Your task to perform on an android device: turn notification dots off Image 0: 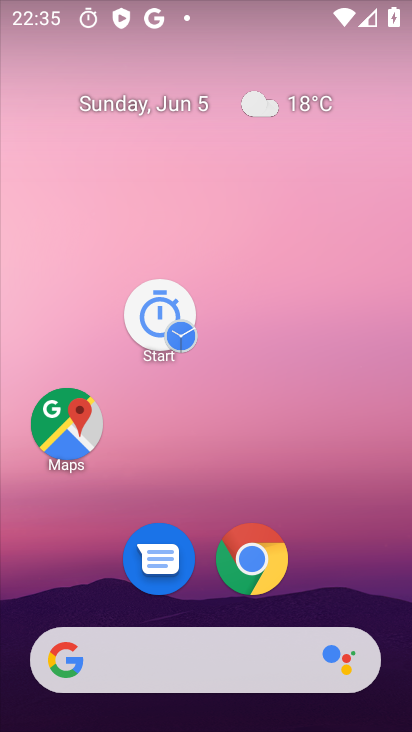
Step 0: drag from (266, 679) to (231, 247)
Your task to perform on an android device: turn notification dots off Image 1: 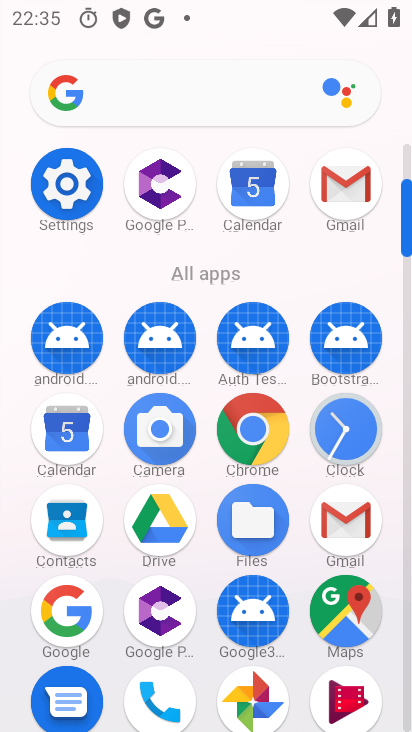
Step 1: click (62, 194)
Your task to perform on an android device: turn notification dots off Image 2: 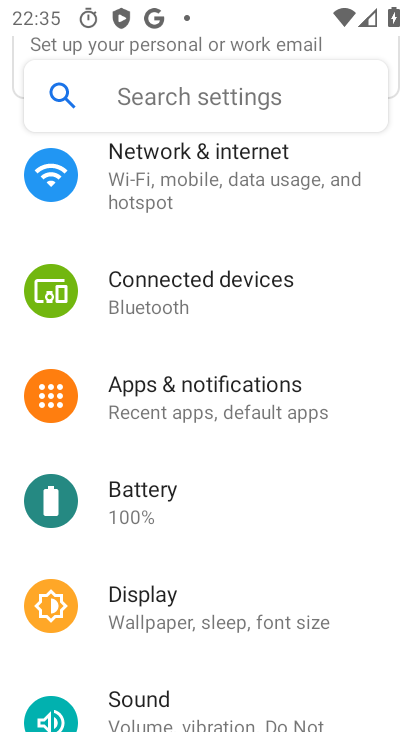
Step 2: click (186, 402)
Your task to perform on an android device: turn notification dots off Image 3: 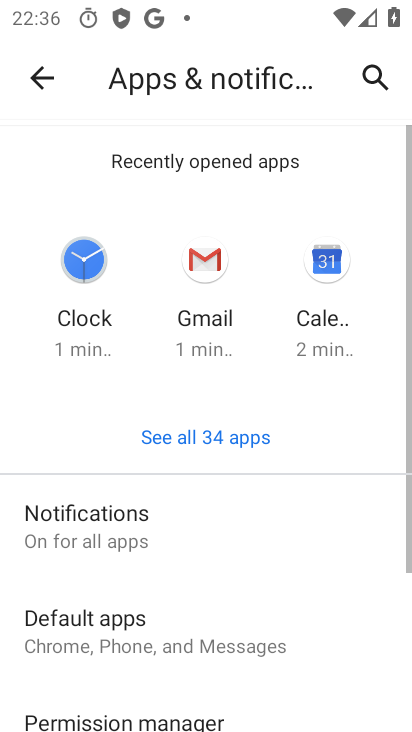
Step 3: click (181, 397)
Your task to perform on an android device: turn notification dots off Image 4: 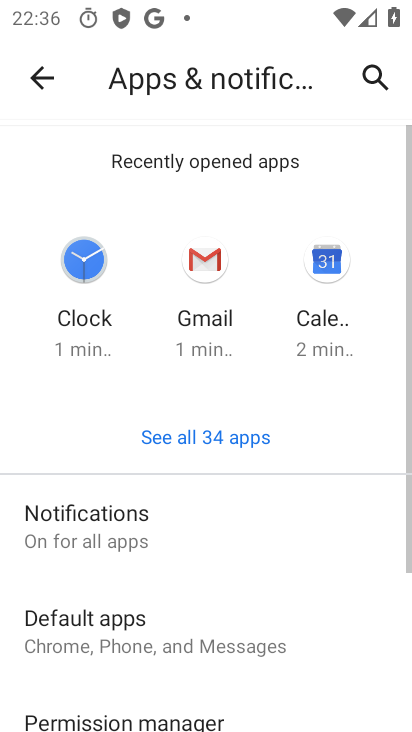
Step 4: click (188, 398)
Your task to perform on an android device: turn notification dots off Image 5: 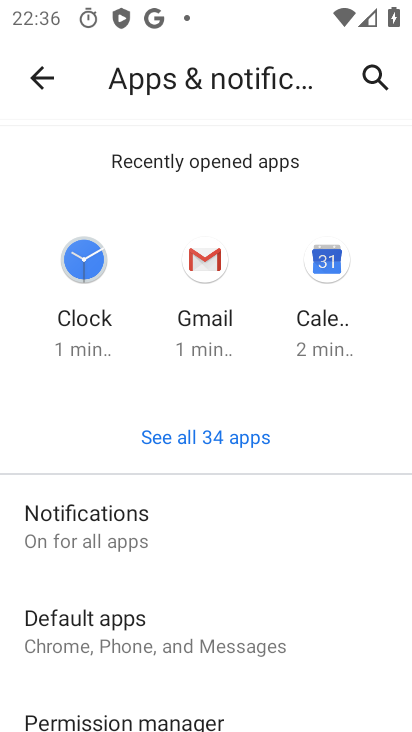
Step 5: click (180, 402)
Your task to perform on an android device: turn notification dots off Image 6: 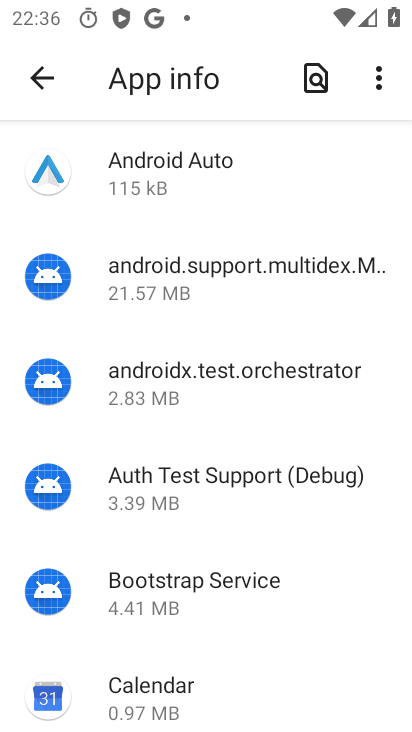
Step 6: drag from (75, 473) to (104, 245)
Your task to perform on an android device: turn notification dots off Image 7: 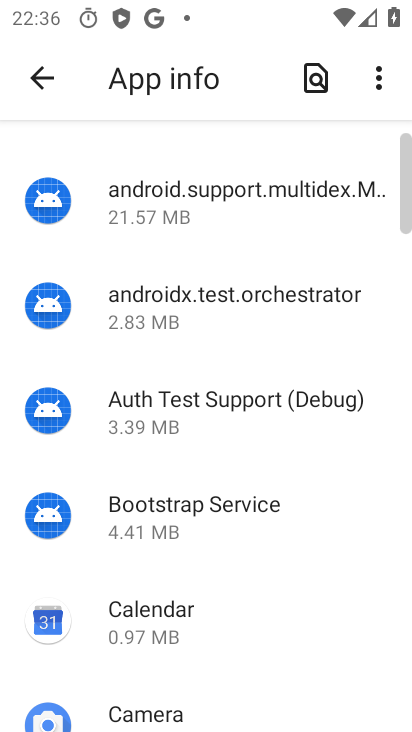
Step 7: click (40, 73)
Your task to perform on an android device: turn notification dots off Image 8: 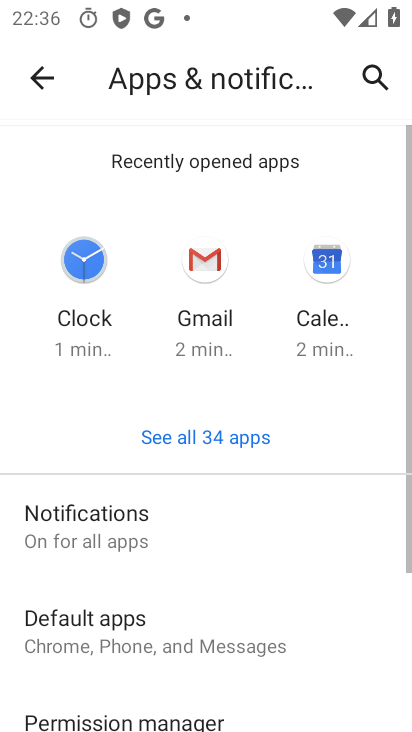
Step 8: drag from (108, 521) to (110, 264)
Your task to perform on an android device: turn notification dots off Image 9: 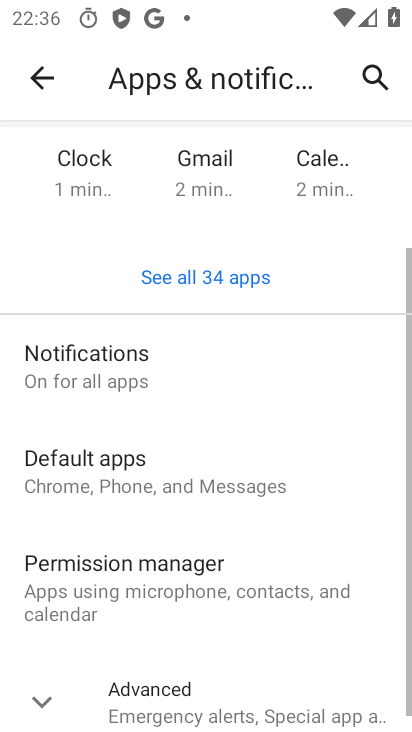
Step 9: drag from (148, 405) to (125, 132)
Your task to perform on an android device: turn notification dots off Image 10: 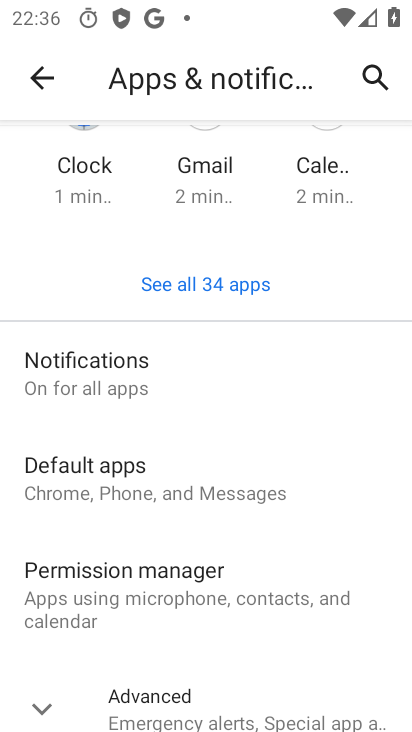
Step 10: drag from (121, 469) to (165, 133)
Your task to perform on an android device: turn notification dots off Image 11: 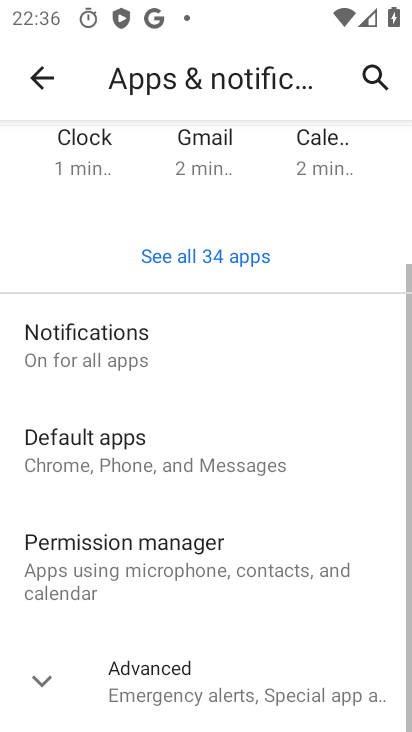
Step 11: drag from (119, 435) to (55, 124)
Your task to perform on an android device: turn notification dots off Image 12: 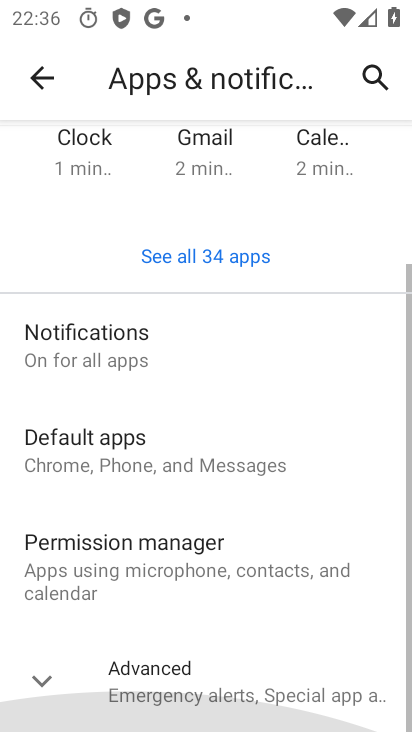
Step 12: drag from (179, 406) to (185, 293)
Your task to perform on an android device: turn notification dots off Image 13: 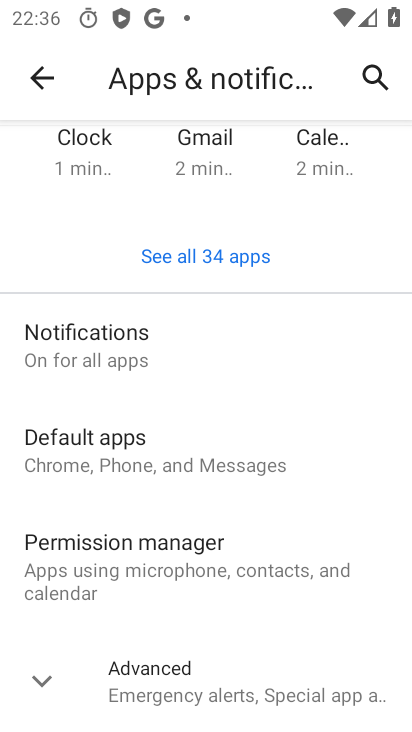
Step 13: click (164, 686)
Your task to perform on an android device: turn notification dots off Image 14: 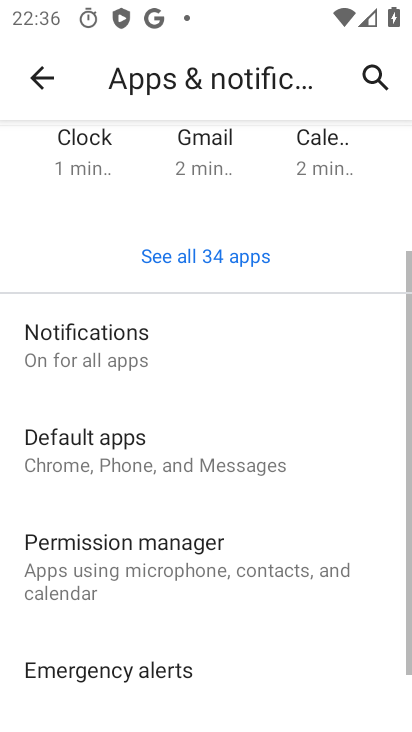
Step 14: drag from (191, 456) to (181, 204)
Your task to perform on an android device: turn notification dots off Image 15: 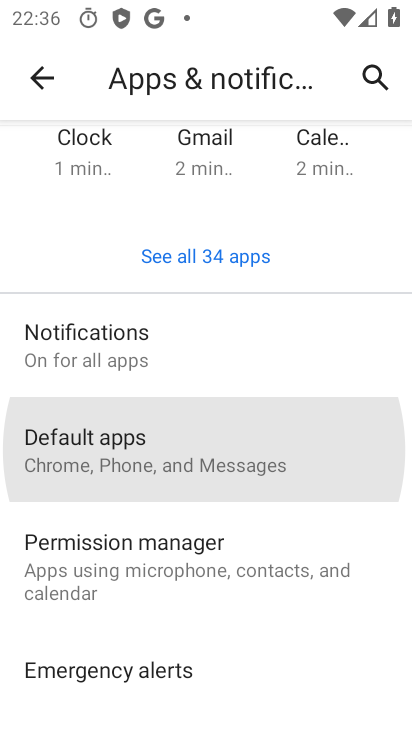
Step 15: drag from (206, 504) to (189, 210)
Your task to perform on an android device: turn notification dots off Image 16: 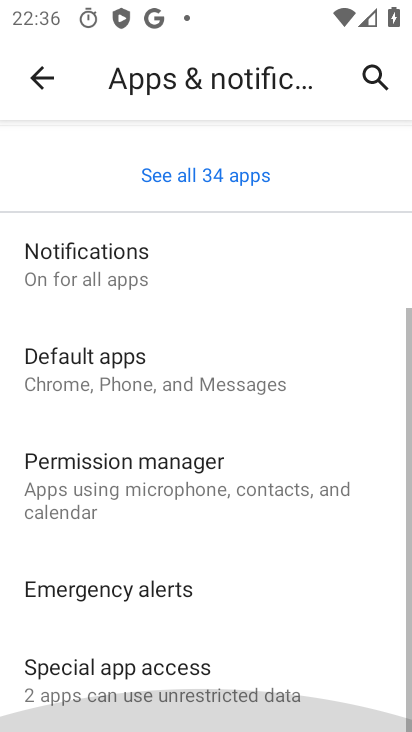
Step 16: drag from (154, 529) to (133, 167)
Your task to perform on an android device: turn notification dots off Image 17: 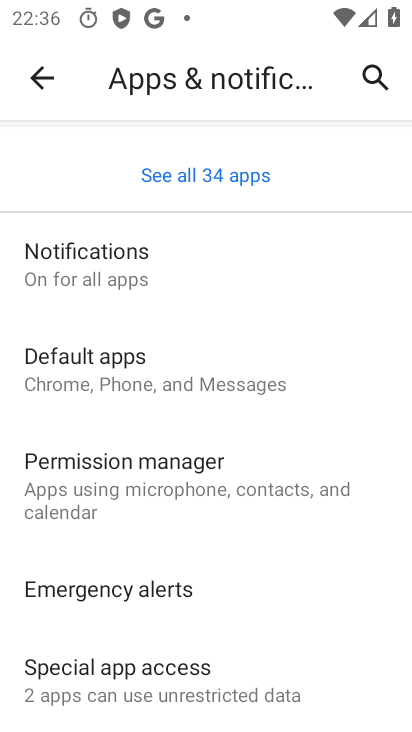
Step 17: click (81, 266)
Your task to perform on an android device: turn notification dots off Image 18: 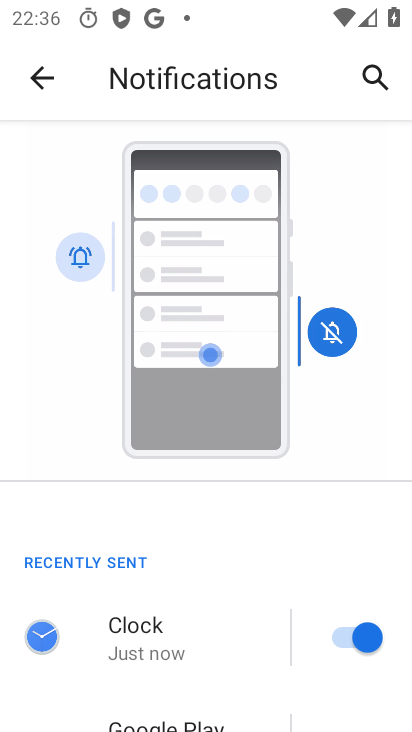
Step 18: drag from (222, 543) to (219, 247)
Your task to perform on an android device: turn notification dots off Image 19: 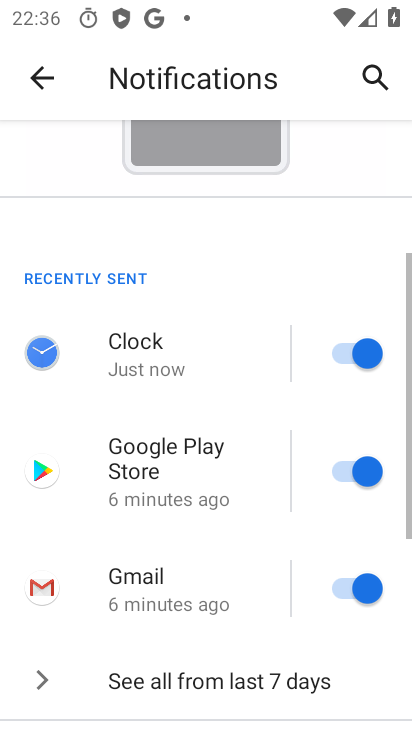
Step 19: drag from (181, 424) to (181, 143)
Your task to perform on an android device: turn notification dots off Image 20: 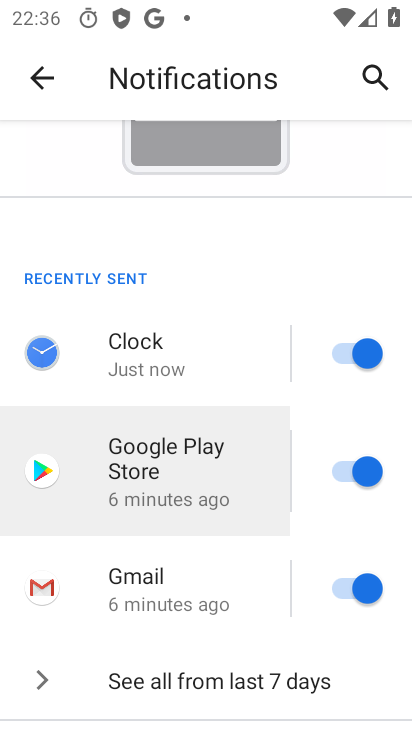
Step 20: drag from (161, 444) to (156, 76)
Your task to perform on an android device: turn notification dots off Image 21: 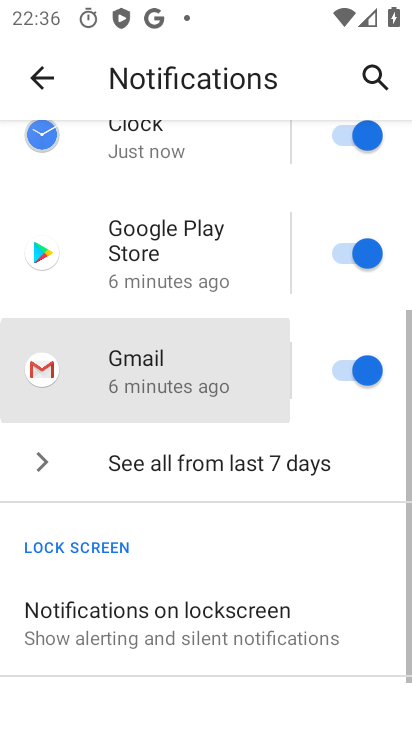
Step 21: drag from (191, 398) to (225, 143)
Your task to perform on an android device: turn notification dots off Image 22: 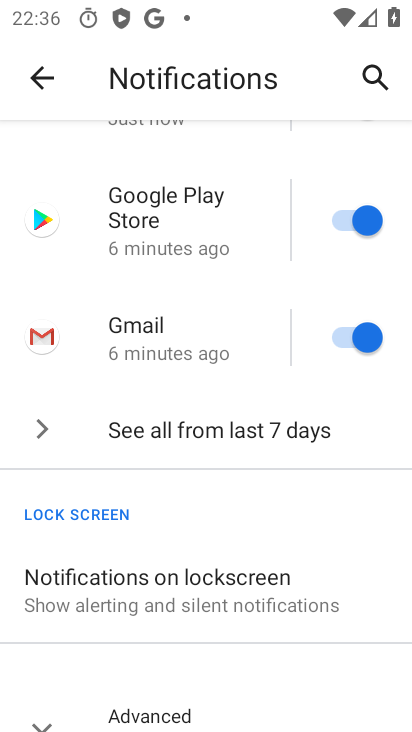
Step 22: drag from (204, 394) to (168, 198)
Your task to perform on an android device: turn notification dots off Image 23: 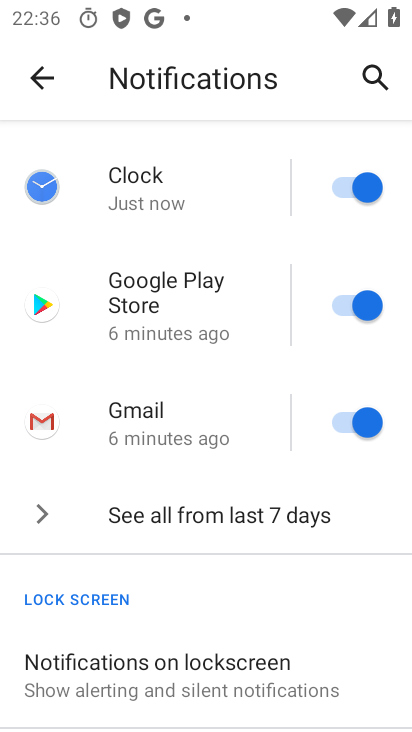
Step 23: click (146, 679)
Your task to perform on an android device: turn notification dots off Image 24: 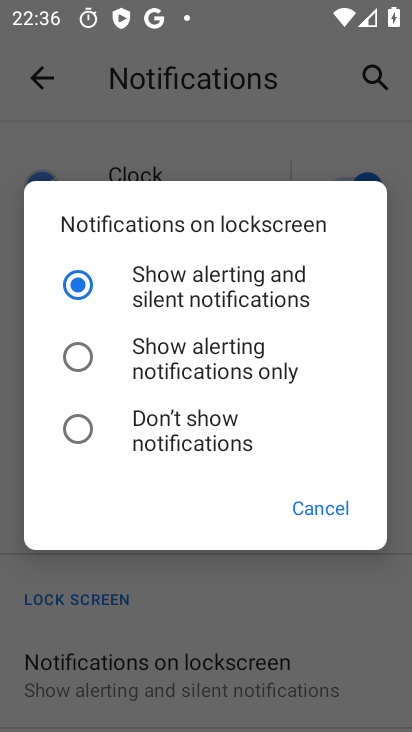
Step 24: click (325, 505)
Your task to perform on an android device: turn notification dots off Image 25: 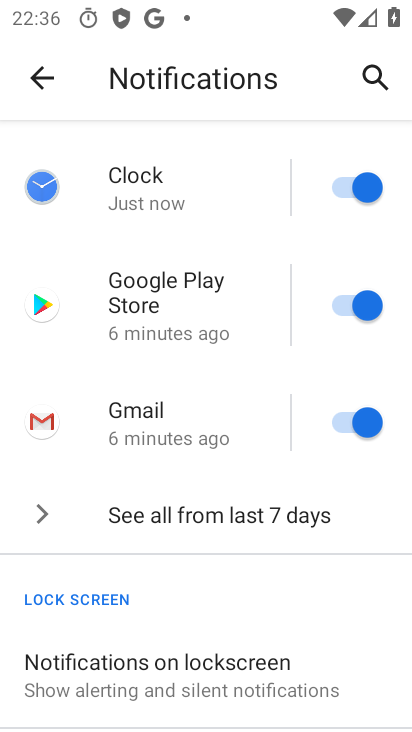
Step 25: drag from (212, 606) to (150, 151)
Your task to perform on an android device: turn notification dots off Image 26: 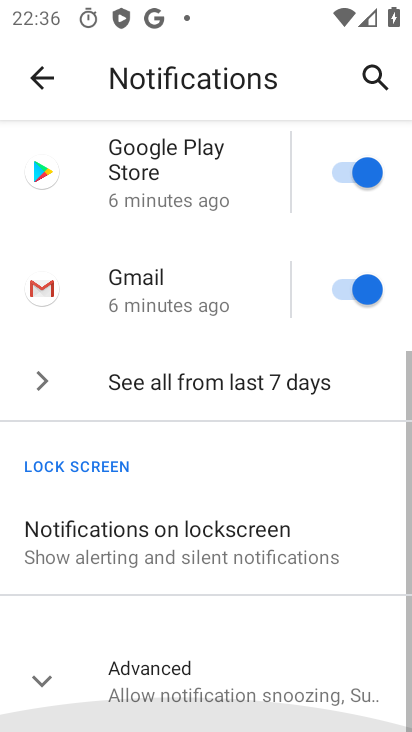
Step 26: drag from (160, 554) to (168, 160)
Your task to perform on an android device: turn notification dots off Image 27: 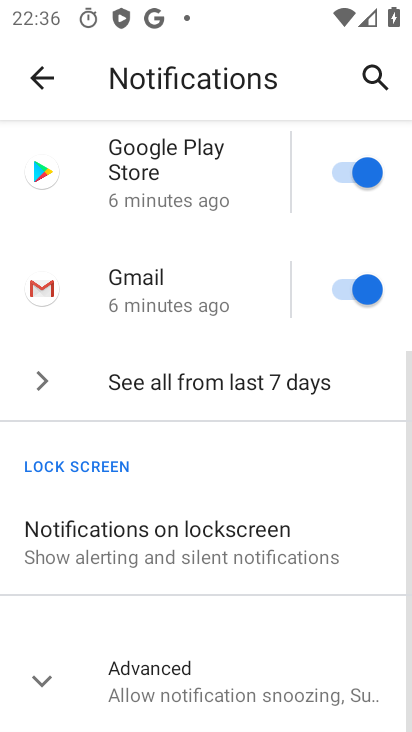
Step 27: click (147, 683)
Your task to perform on an android device: turn notification dots off Image 28: 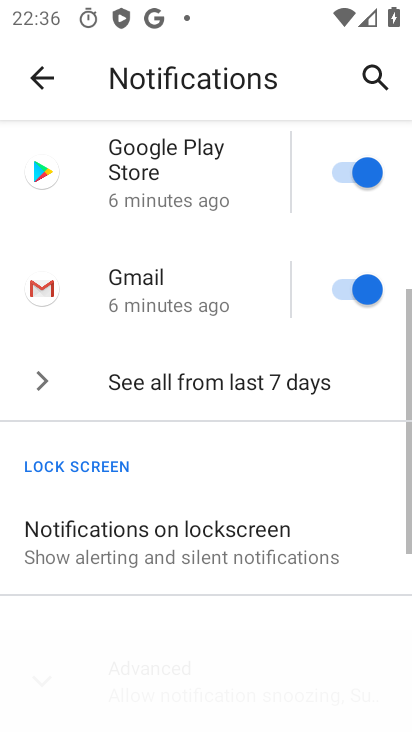
Step 28: click (147, 683)
Your task to perform on an android device: turn notification dots off Image 29: 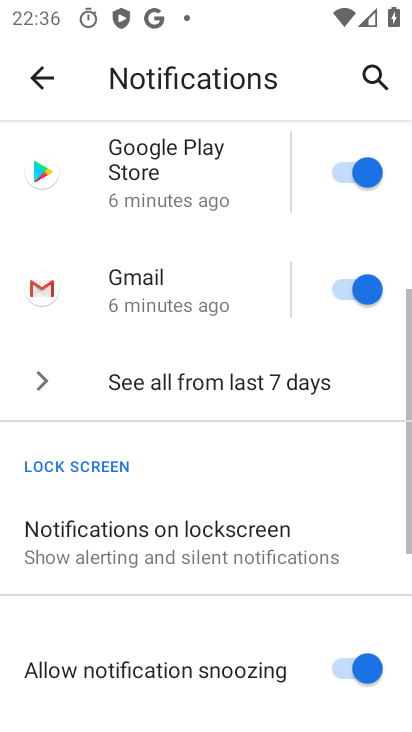
Step 29: drag from (224, 592) to (203, 133)
Your task to perform on an android device: turn notification dots off Image 30: 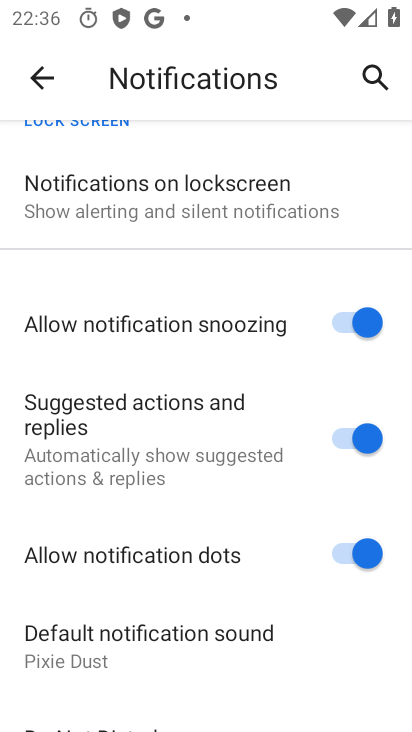
Step 30: click (373, 550)
Your task to perform on an android device: turn notification dots off Image 31: 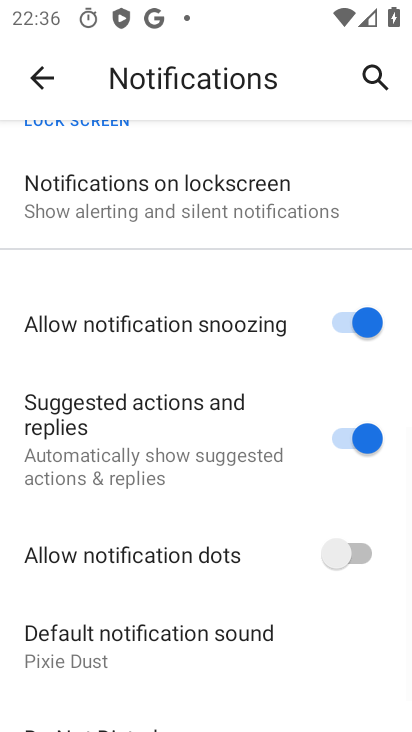
Step 31: task complete